Your task to perform on an android device: Open my contact list Image 0: 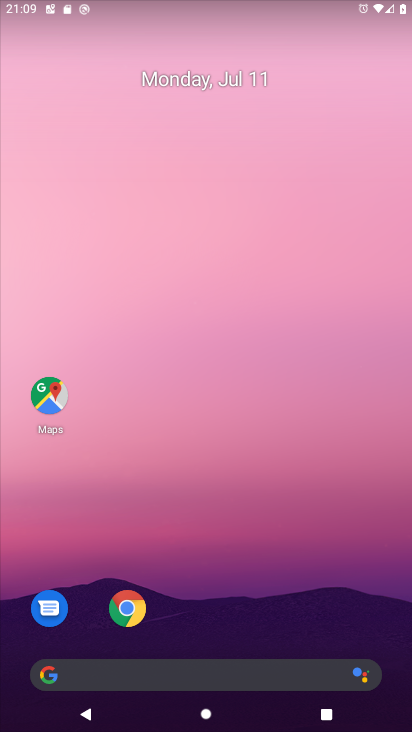
Step 0: drag from (244, 621) to (259, 146)
Your task to perform on an android device: Open my contact list Image 1: 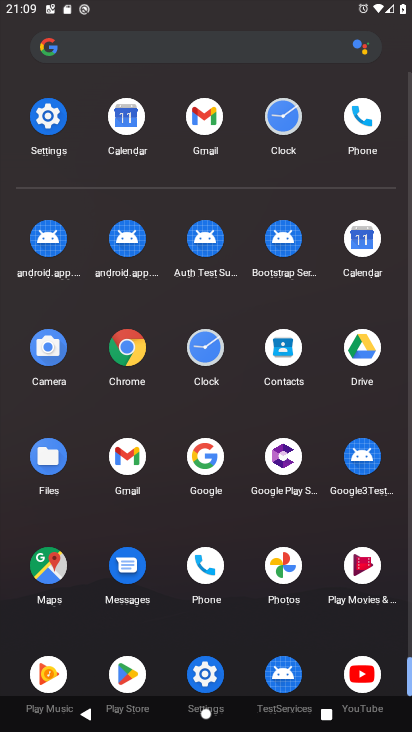
Step 1: click (48, 132)
Your task to perform on an android device: Open my contact list Image 2: 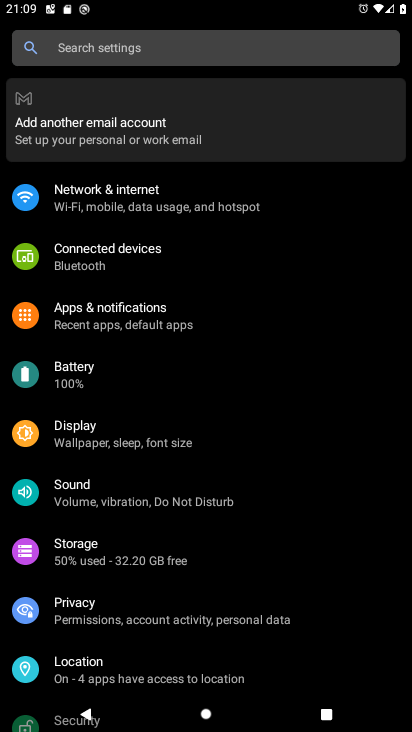
Step 2: press home button
Your task to perform on an android device: Open my contact list Image 3: 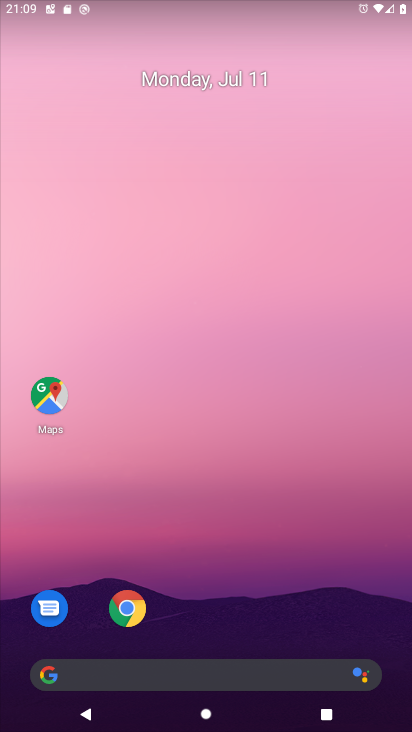
Step 3: drag from (278, 614) to (267, 154)
Your task to perform on an android device: Open my contact list Image 4: 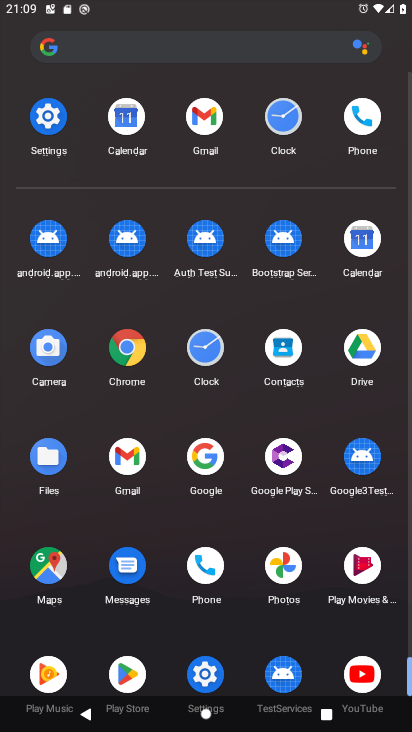
Step 4: click (274, 365)
Your task to perform on an android device: Open my contact list Image 5: 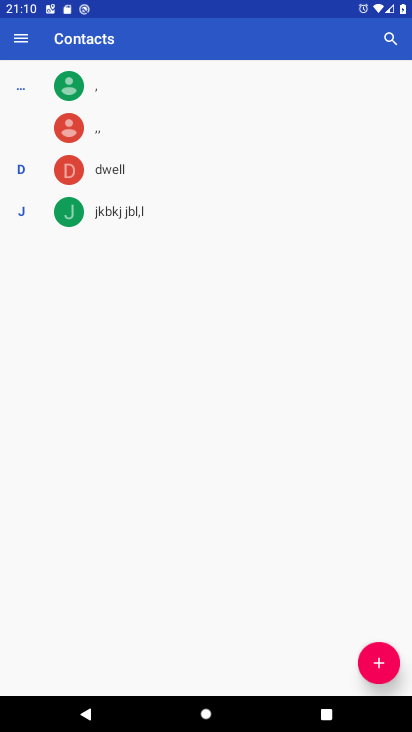
Step 5: task complete